Your task to perform on an android device: turn off javascript in the chrome app Image 0: 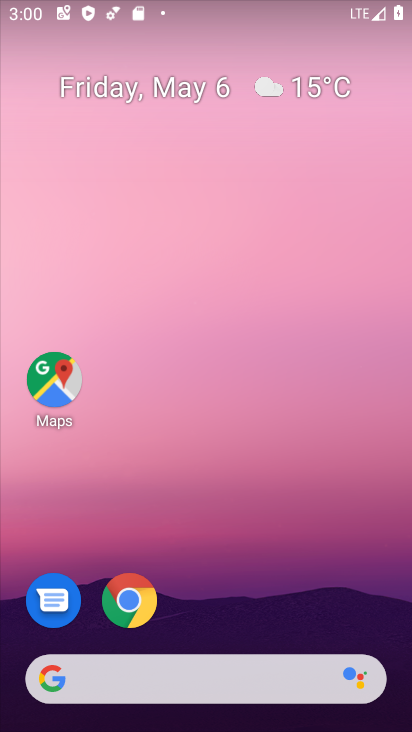
Step 0: drag from (288, 561) to (239, 15)
Your task to perform on an android device: turn off javascript in the chrome app Image 1: 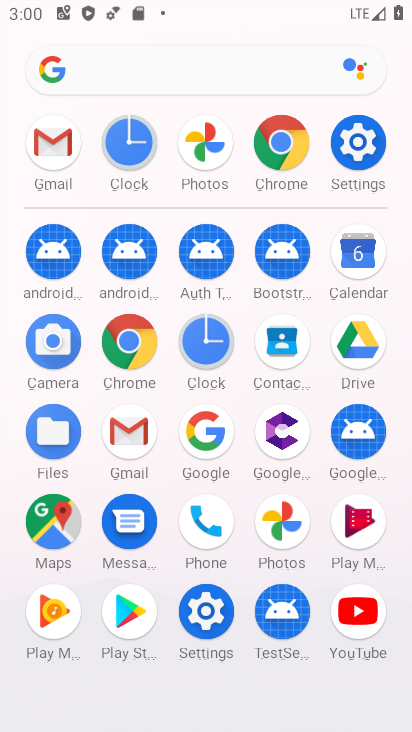
Step 1: click (126, 339)
Your task to perform on an android device: turn off javascript in the chrome app Image 2: 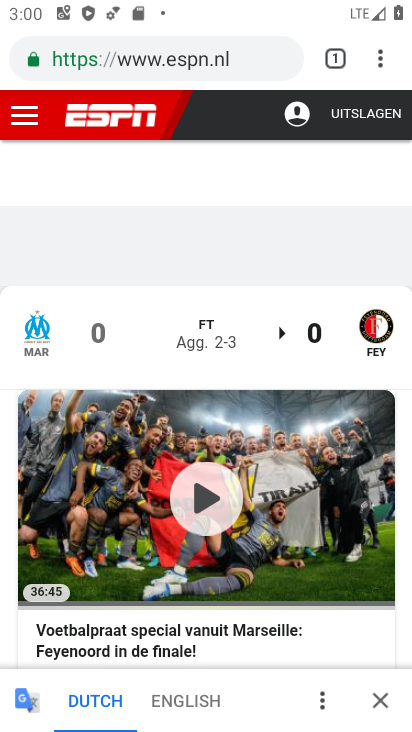
Step 2: drag from (379, 60) to (178, 613)
Your task to perform on an android device: turn off javascript in the chrome app Image 3: 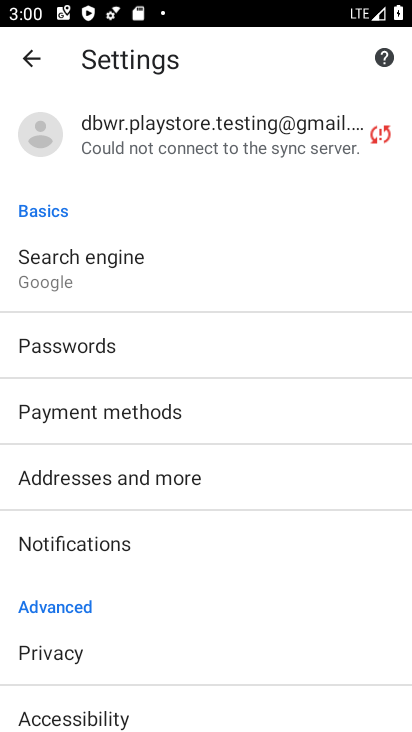
Step 3: drag from (212, 521) to (226, 190)
Your task to perform on an android device: turn off javascript in the chrome app Image 4: 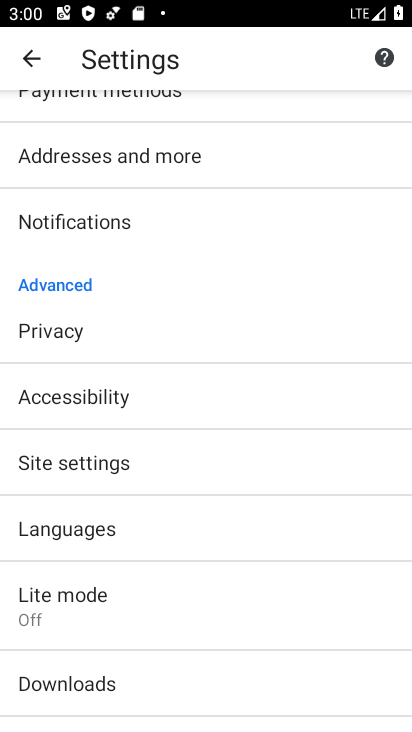
Step 4: drag from (201, 517) to (216, 216)
Your task to perform on an android device: turn off javascript in the chrome app Image 5: 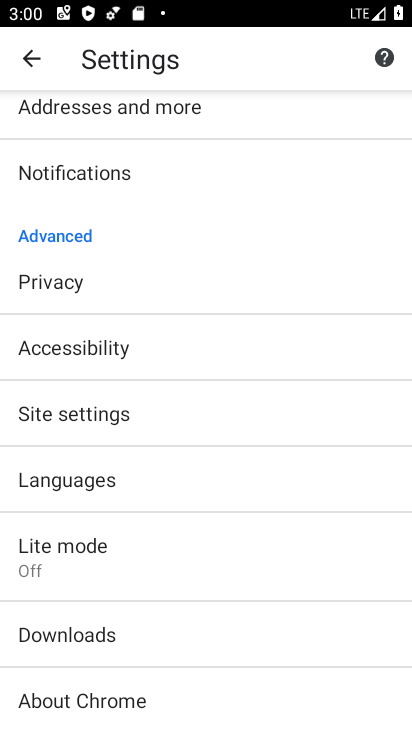
Step 5: click (120, 418)
Your task to perform on an android device: turn off javascript in the chrome app Image 6: 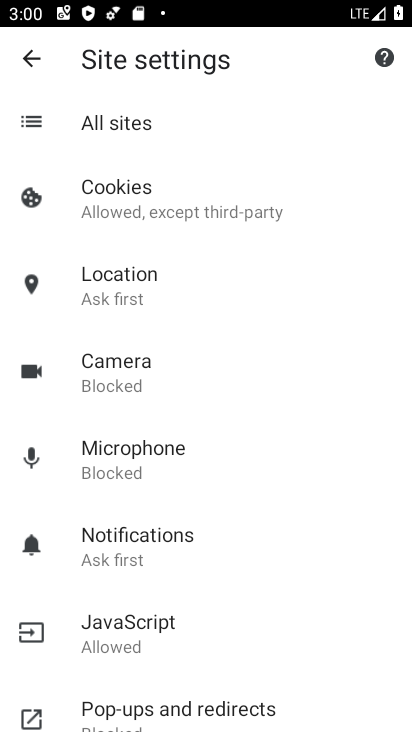
Step 6: drag from (231, 530) to (233, 176)
Your task to perform on an android device: turn off javascript in the chrome app Image 7: 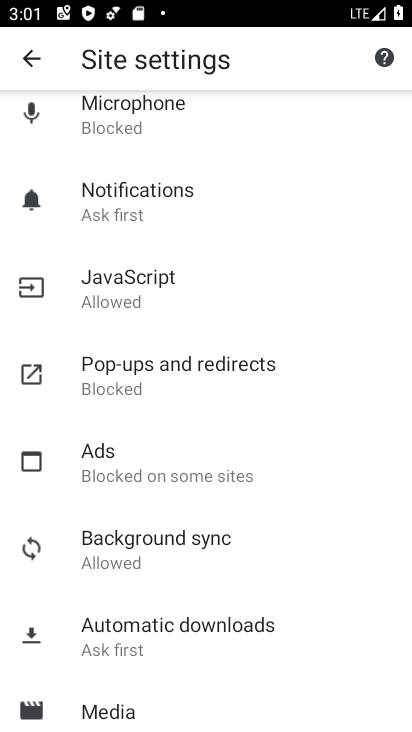
Step 7: click (171, 280)
Your task to perform on an android device: turn off javascript in the chrome app Image 8: 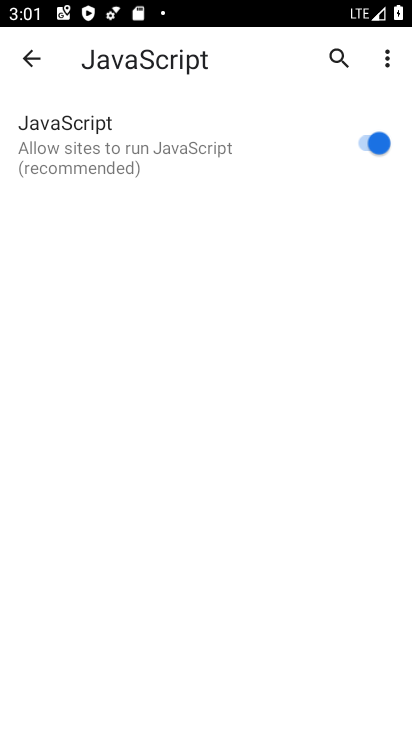
Step 8: click (364, 139)
Your task to perform on an android device: turn off javascript in the chrome app Image 9: 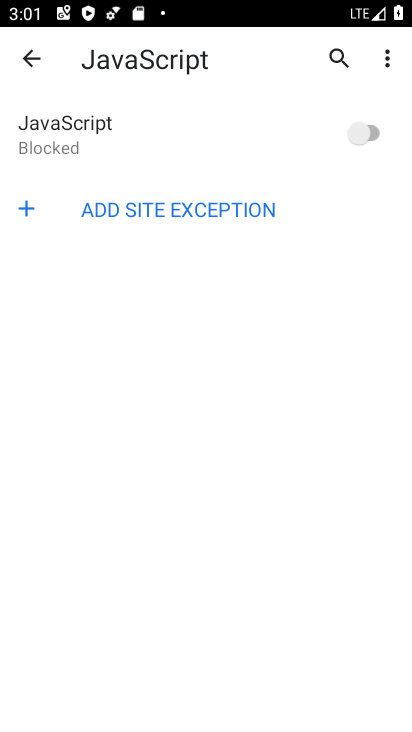
Step 9: task complete